Your task to perform on an android device: Check the weather Image 0: 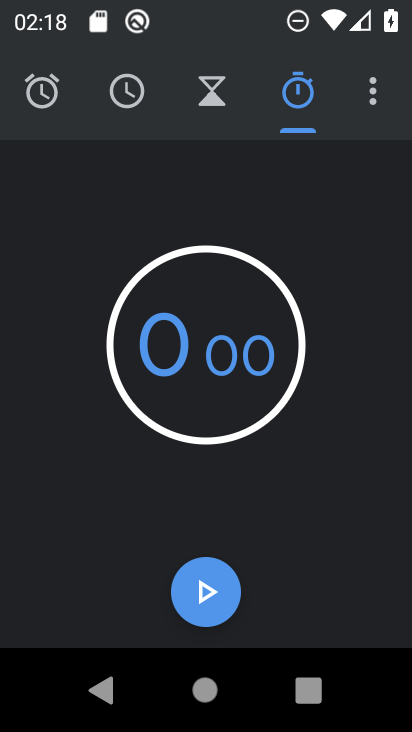
Step 0: press home button
Your task to perform on an android device: Check the weather Image 1: 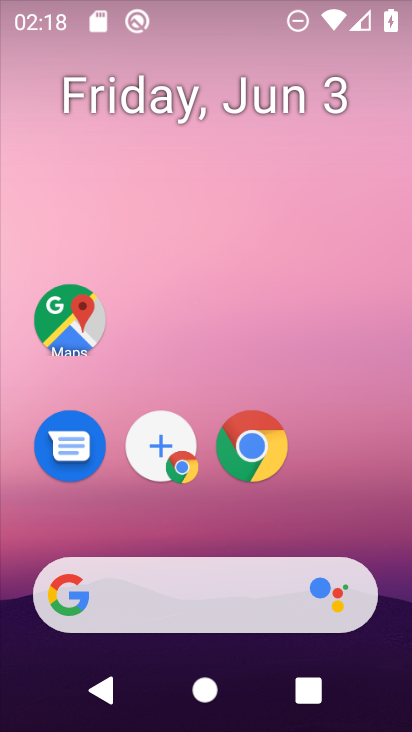
Step 1: click (212, 607)
Your task to perform on an android device: Check the weather Image 2: 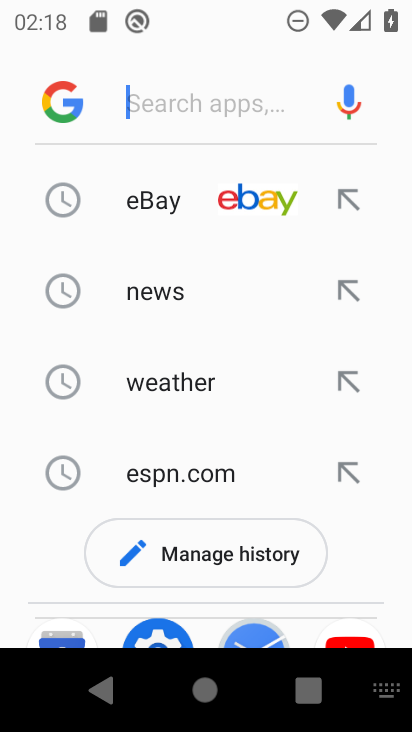
Step 2: click (204, 388)
Your task to perform on an android device: Check the weather Image 3: 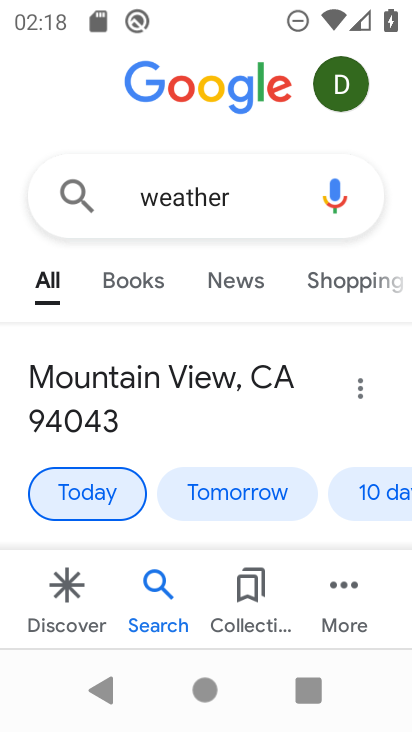
Step 3: task complete